Your task to perform on an android device: turn off wifi Image 0: 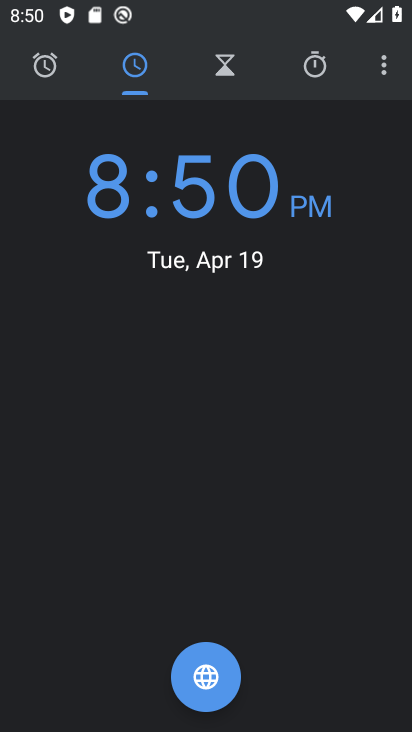
Step 0: press home button
Your task to perform on an android device: turn off wifi Image 1: 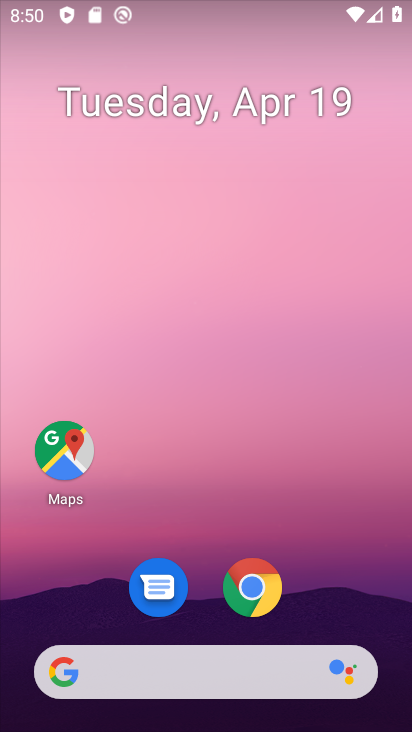
Step 1: drag from (296, 283) to (289, 17)
Your task to perform on an android device: turn off wifi Image 2: 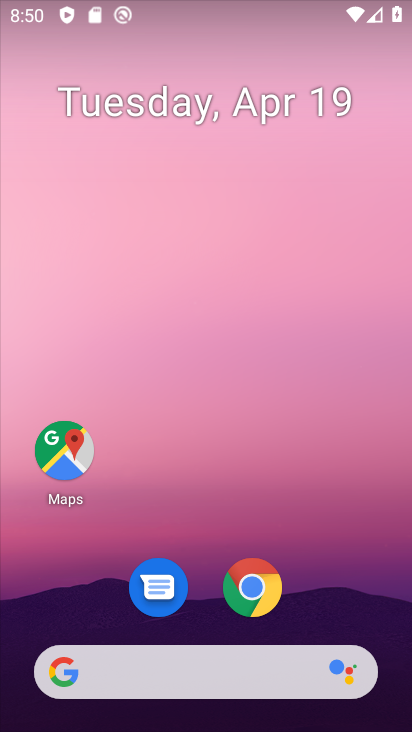
Step 2: drag from (322, 624) to (350, 14)
Your task to perform on an android device: turn off wifi Image 3: 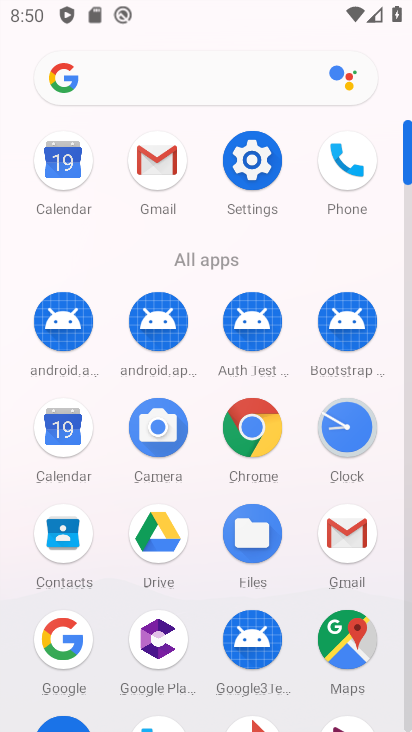
Step 3: click (252, 165)
Your task to perform on an android device: turn off wifi Image 4: 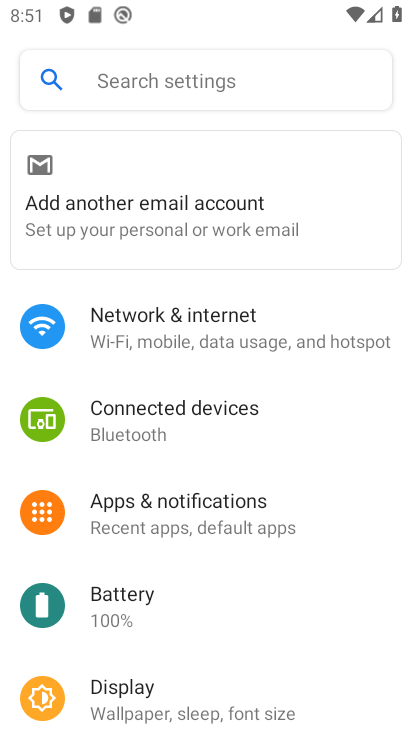
Step 4: click (188, 324)
Your task to perform on an android device: turn off wifi Image 5: 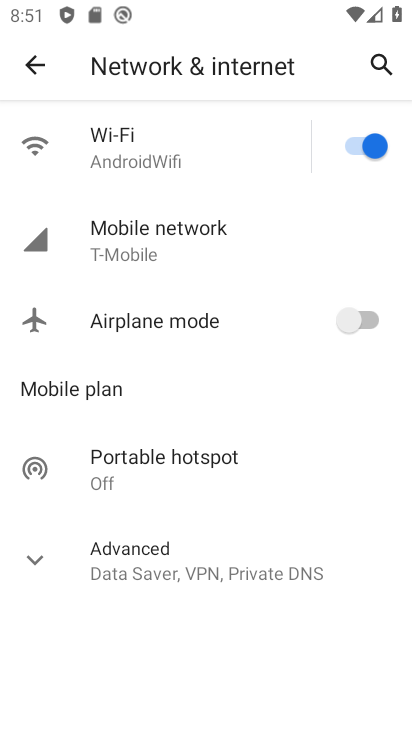
Step 5: click (371, 145)
Your task to perform on an android device: turn off wifi Image 6: 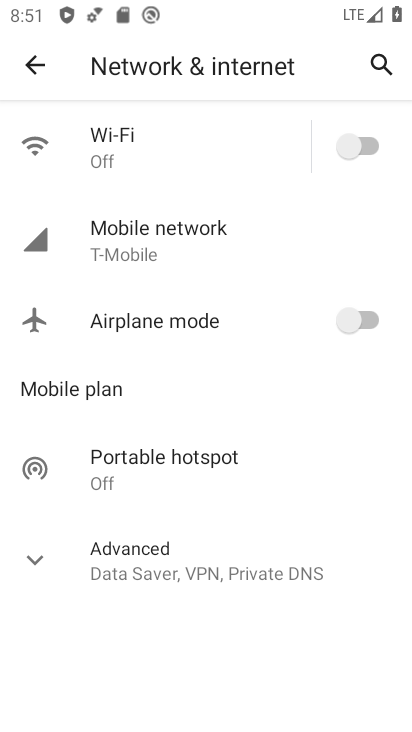
Step 6: task complete